Your task to perform on an android device: turn off location Image 0: 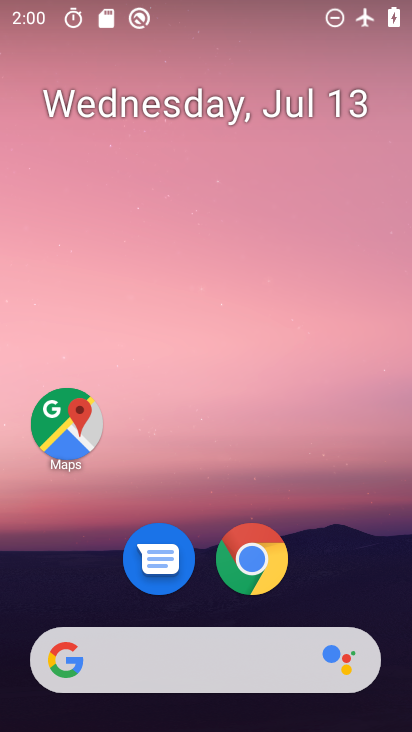
Step 0: drag from (189, 629) to (228, 264)
Your task to perform on an android device: turn off location Image 1: 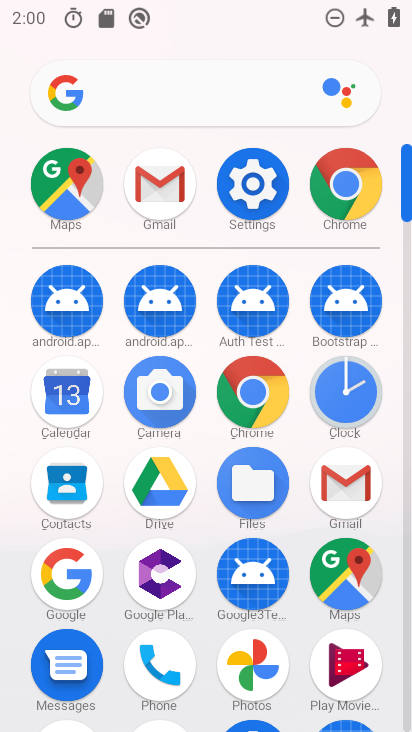
Step 1: drag from (177, 539) to (208, 354)
Your task to perform on an android device: turn off location Image 2: 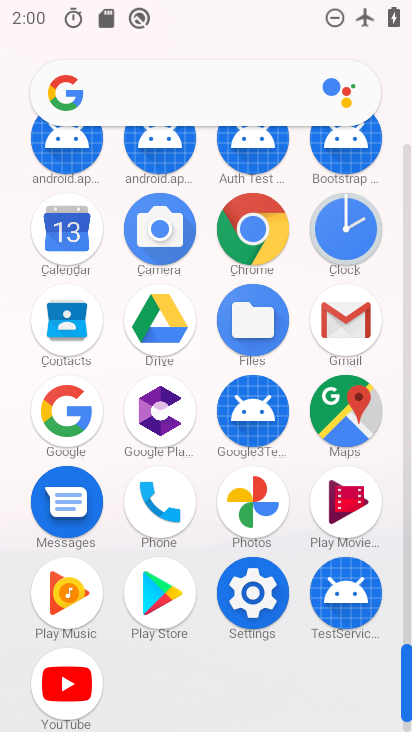
Step 2: click (241, 602)
Your task to perform on an android device: turn off location Image 3: 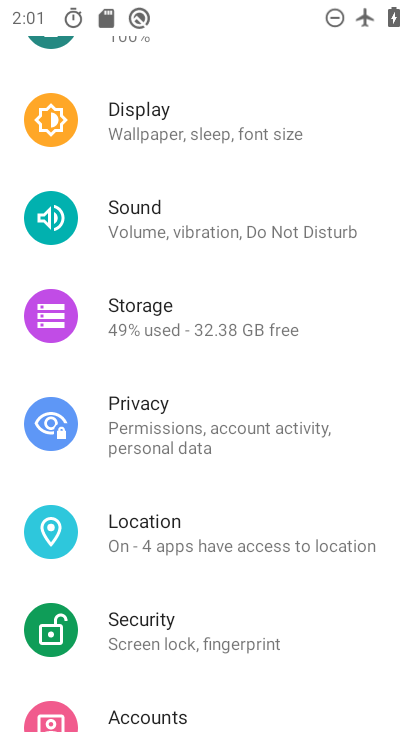
Step 3: click (165, 530)
Your task to perform on an android device: turn off location Image 4: 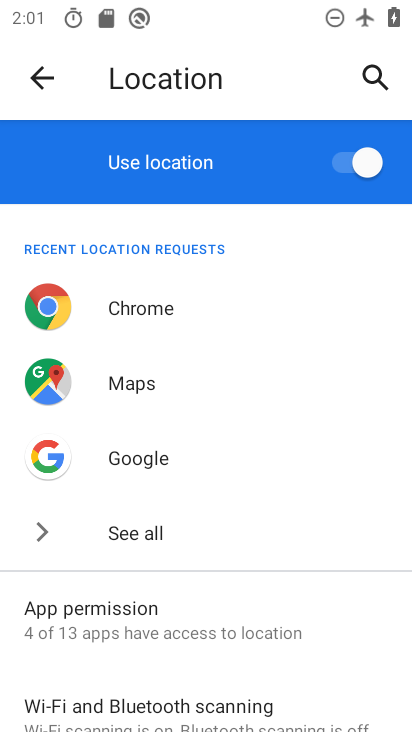
Step 4: click (349, 161)
Your task to perform on an android device: turn off location Image 5: 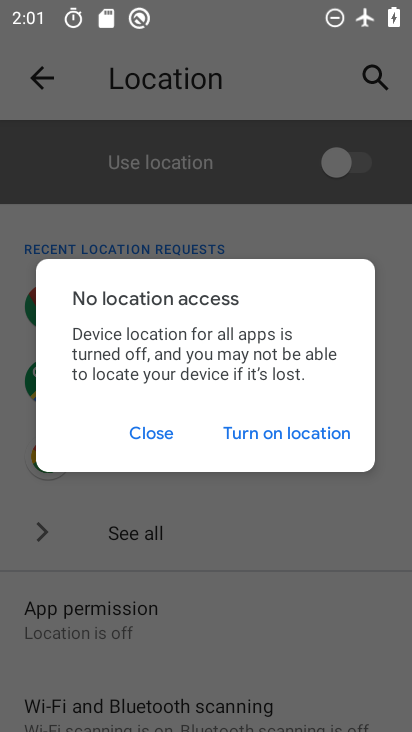
Step 5: task complete